Your task to perform on an android device: Open calendar and show me the second week of next month Image 0: 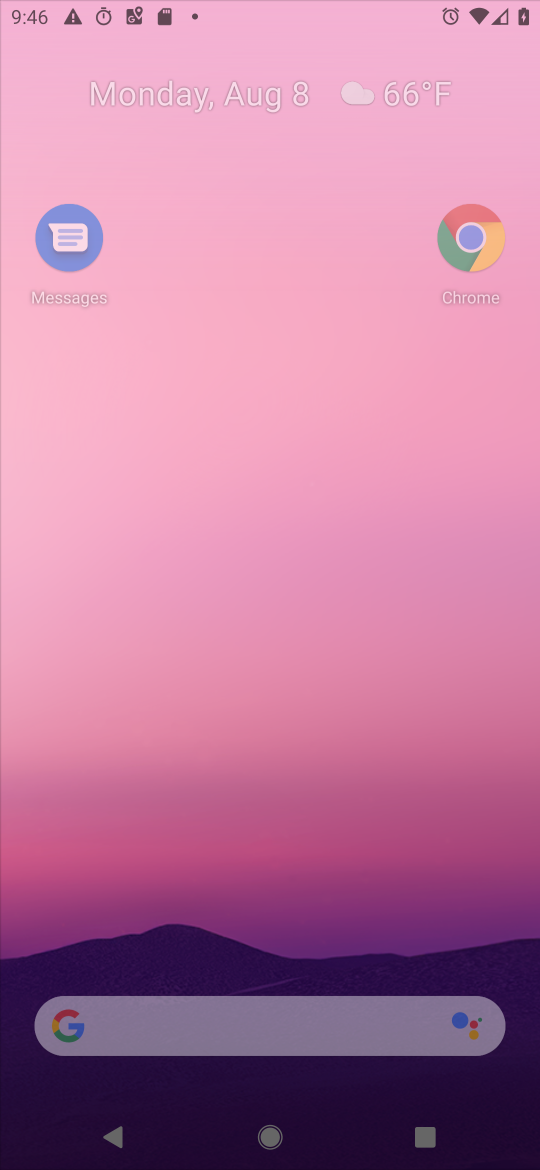
Step 0: drag from (285, 987) to (305, 126)
Your task to perform on an android device: Open calendar and show me the second week of next month Image 1: 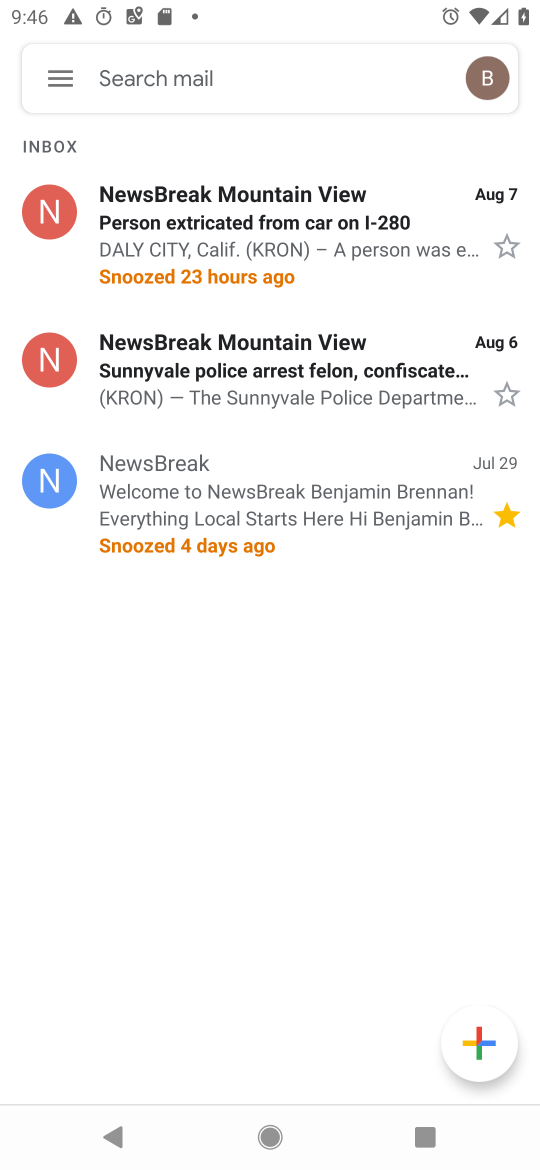
Step 1: press home button
Your task to perform on an android device: Open calendar and show me the second week of next month Image 2: 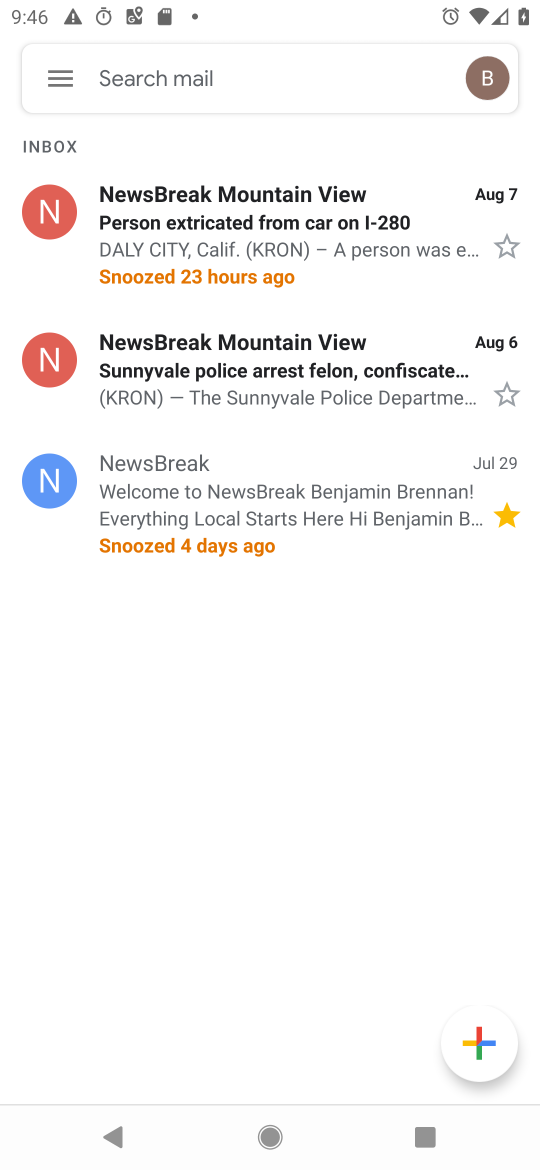
Step 2: press home button
Your task to perform on an android device: Open calendar and show me the second week of next month Image 3: 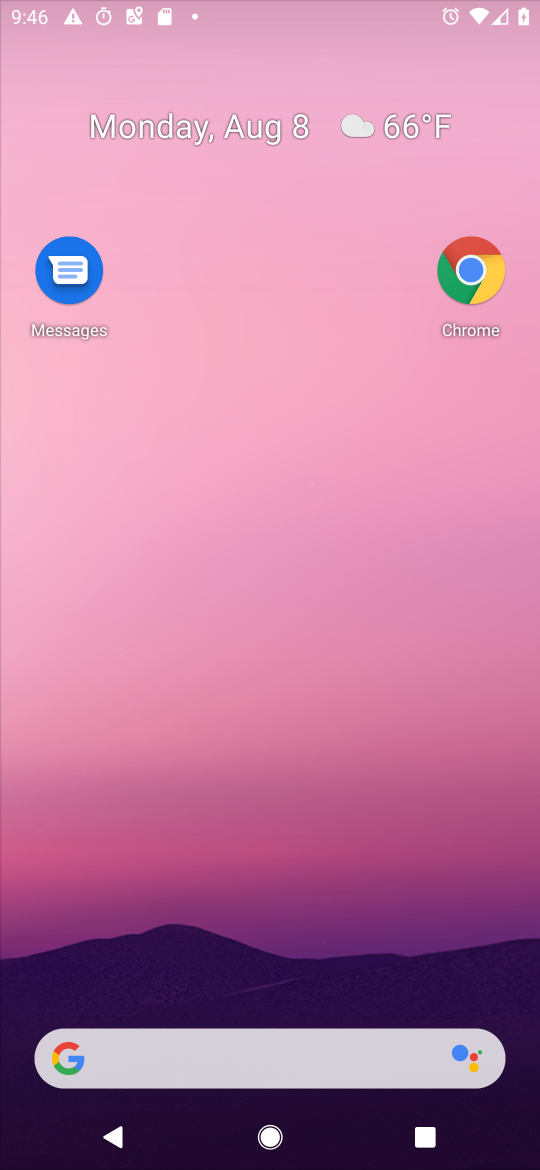
Step 3: press home button
Your task to perform on an android device: Open calendar and show me the second week of next month Image 4: 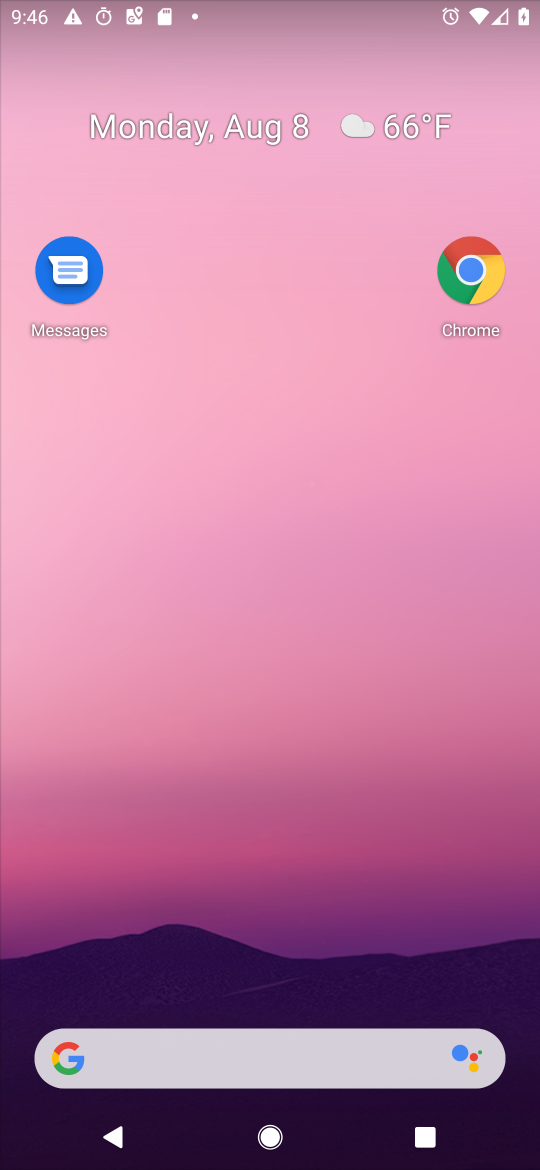
Step 4: press home button
Your task to perform on an android device: Open calendar and show me the second week of next month Image 5: 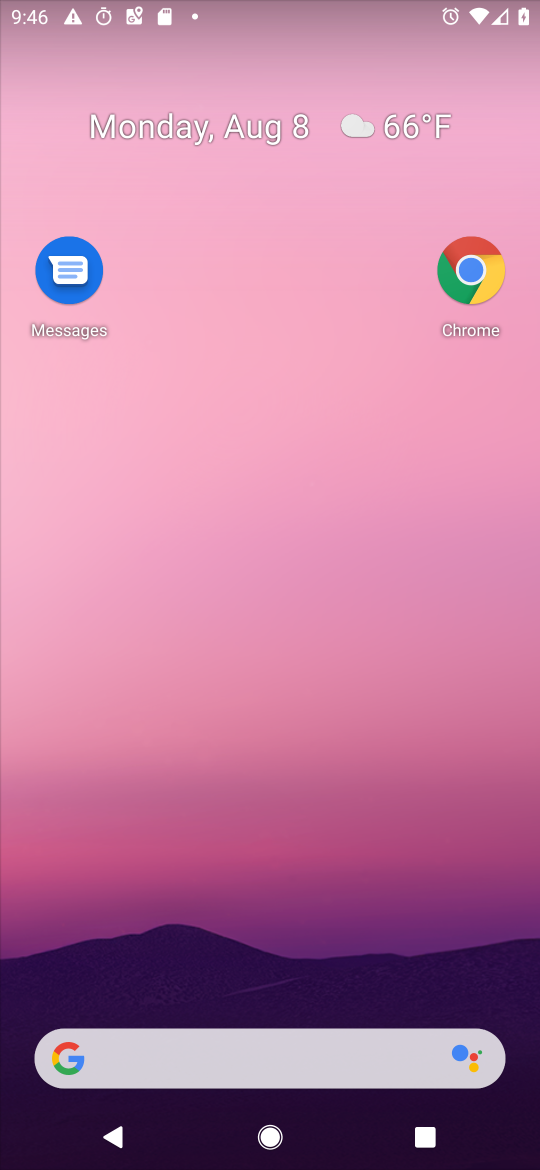
Step 5: press home button
Your task to perform on an android device: Open calendar and show me the second week of next month Image 6: 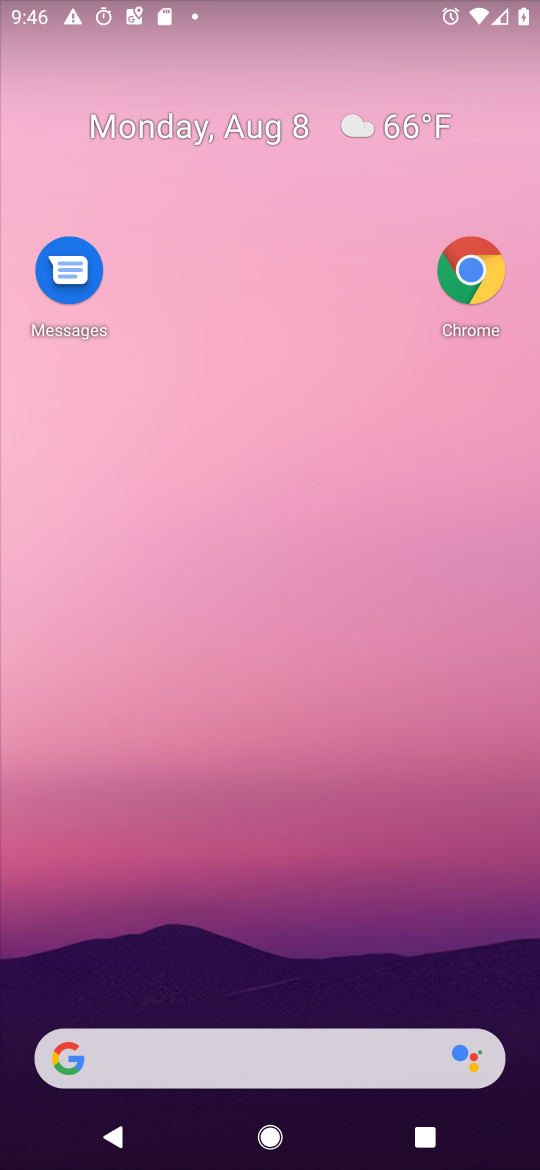
Step 6: drag from (245, 743) to (231, 10)
Your task to perform on an android device: Open calendar and show me the second week of next month Image 7: 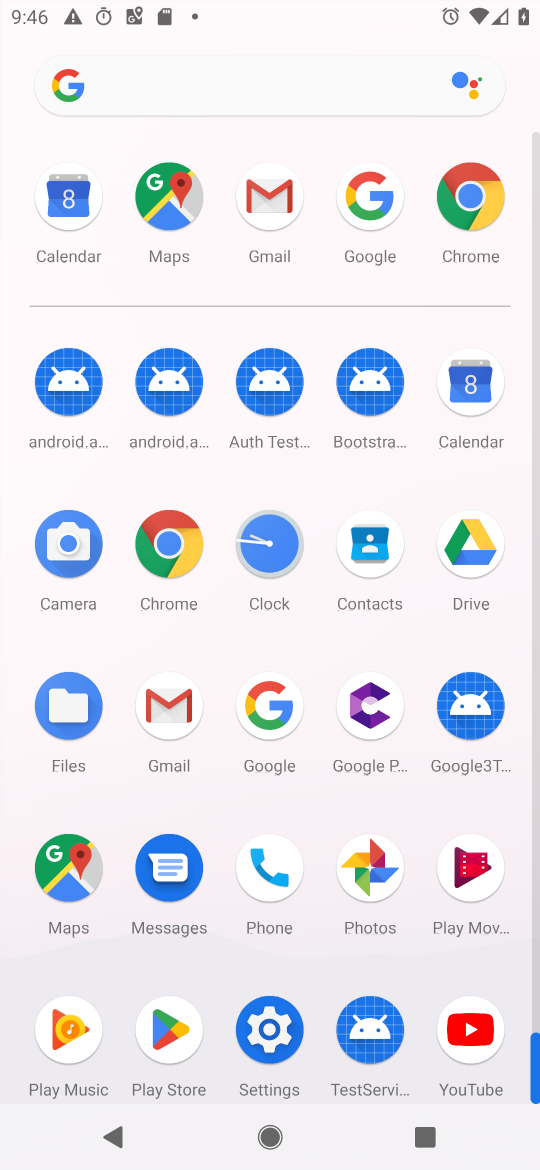
Step 7: click (480, 367)
Your task to perform on an android device: Open calendar and show me the second week of next month Image 8: 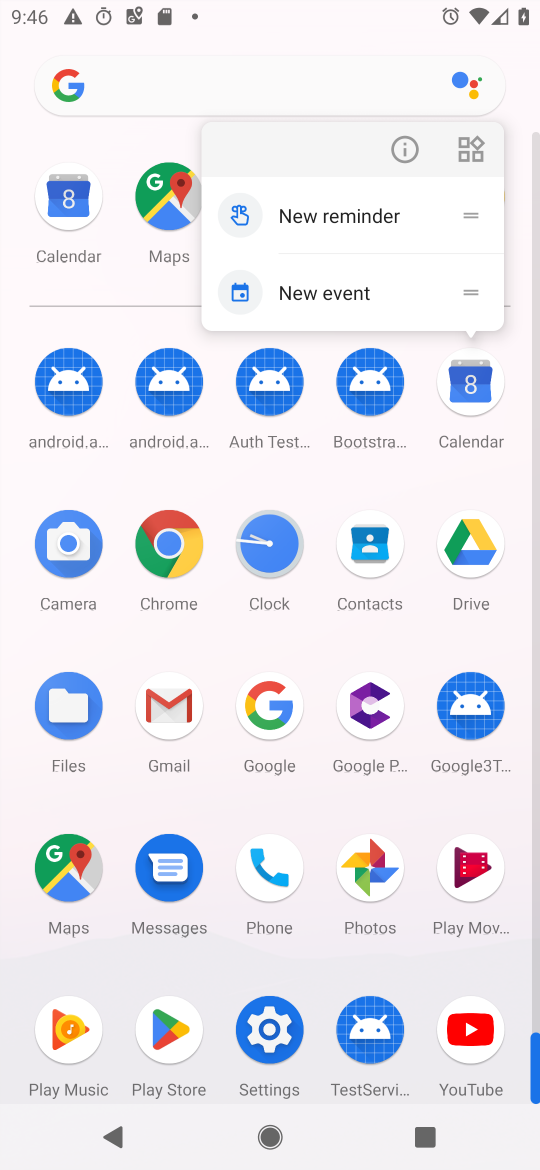
Step 8: click (397, 143)
Your task to perform on an android device: Open calendar and show me the second week of next month Image 9: 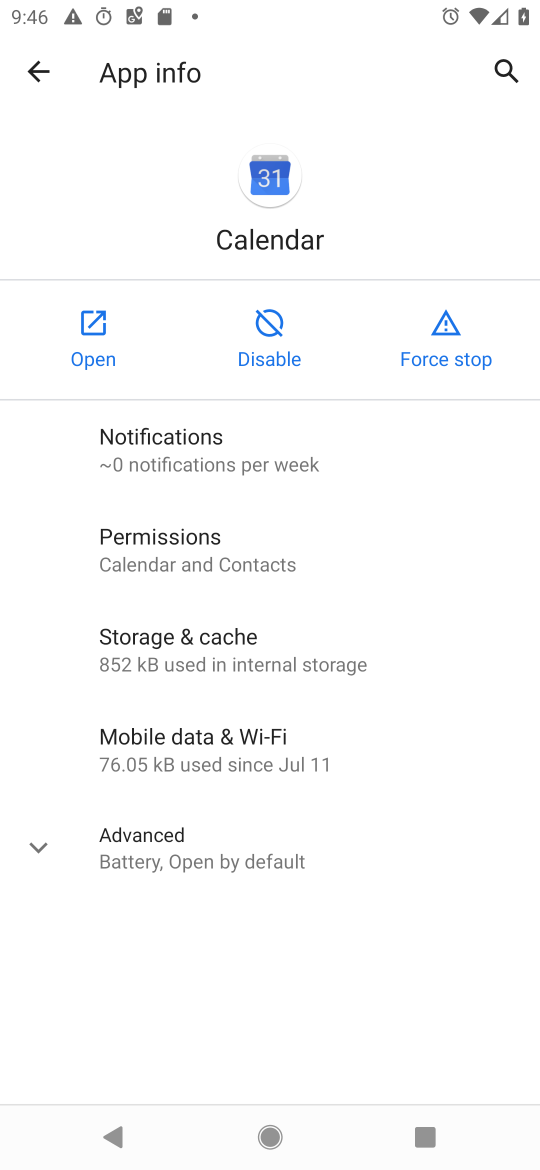
Step 9: click (95, 337)
Your task to perform on an android device: Open calendar and show me the second week of next month Image 10: 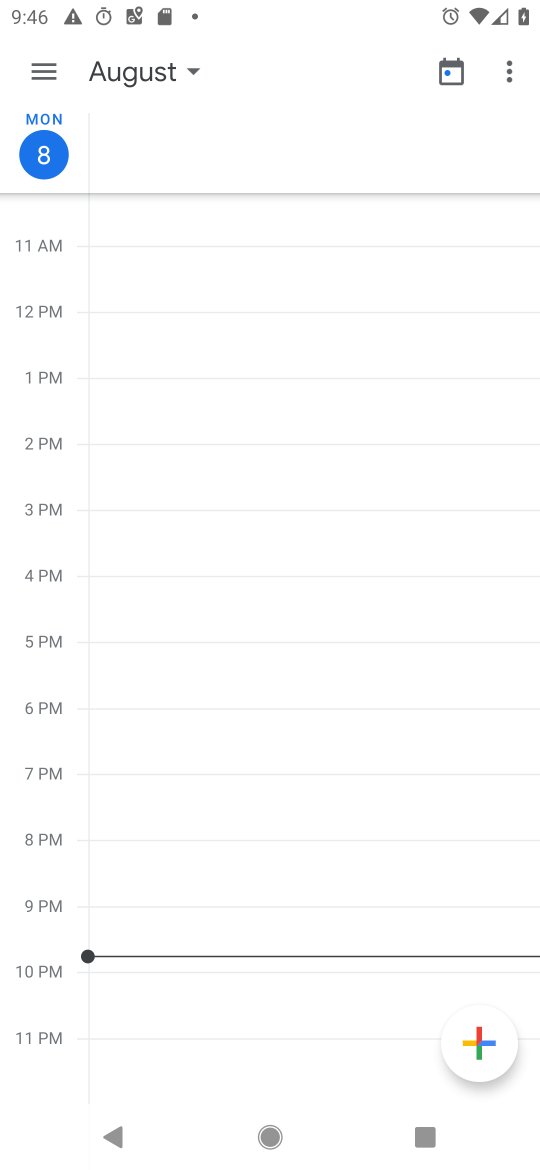
Step 10: click (196, 81)
Your task to perform on an android device: Open calendar and show me the second week of next month Image 11: 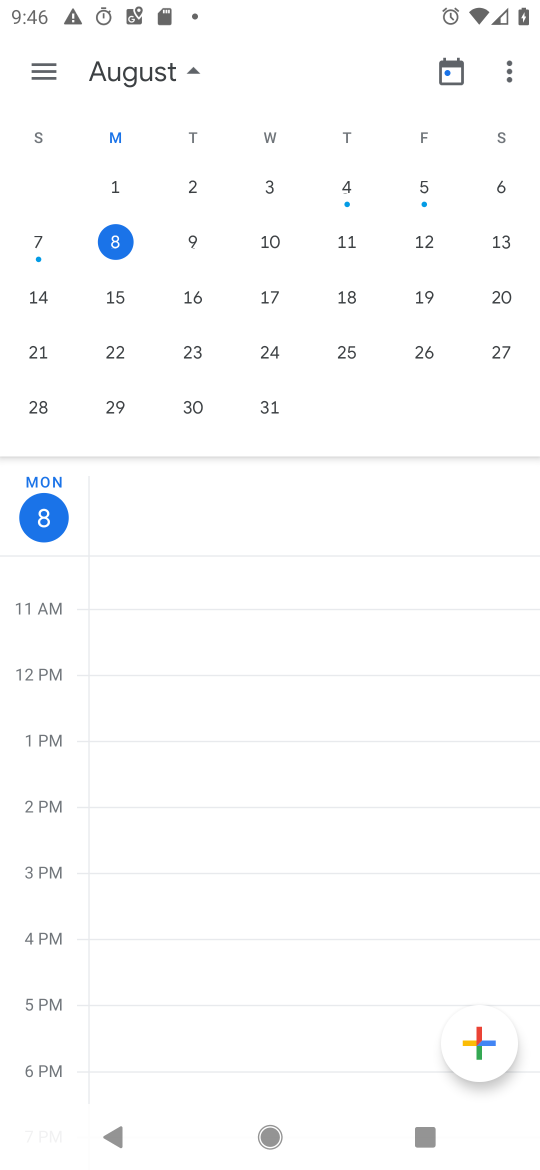
Step 11: drag from (468, 319) to (0, 352)
Your task to perform on an android device: Open calendar and show me the second week of next month Image 12: 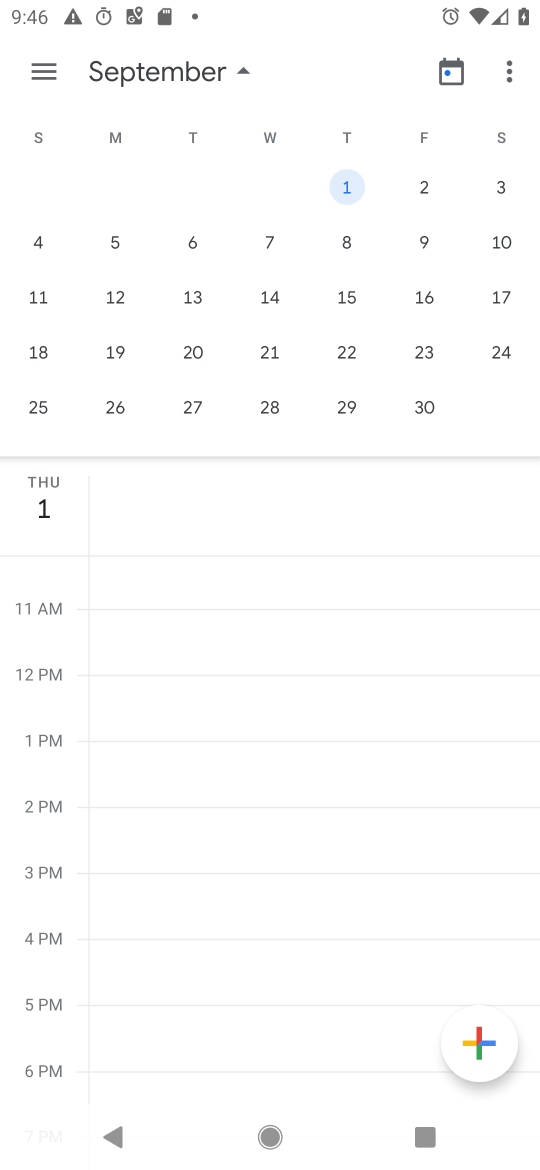
Step 12: click (450, 244)
Your task to perform on an android device: Open calendar and show me the second week of next month Image 13: 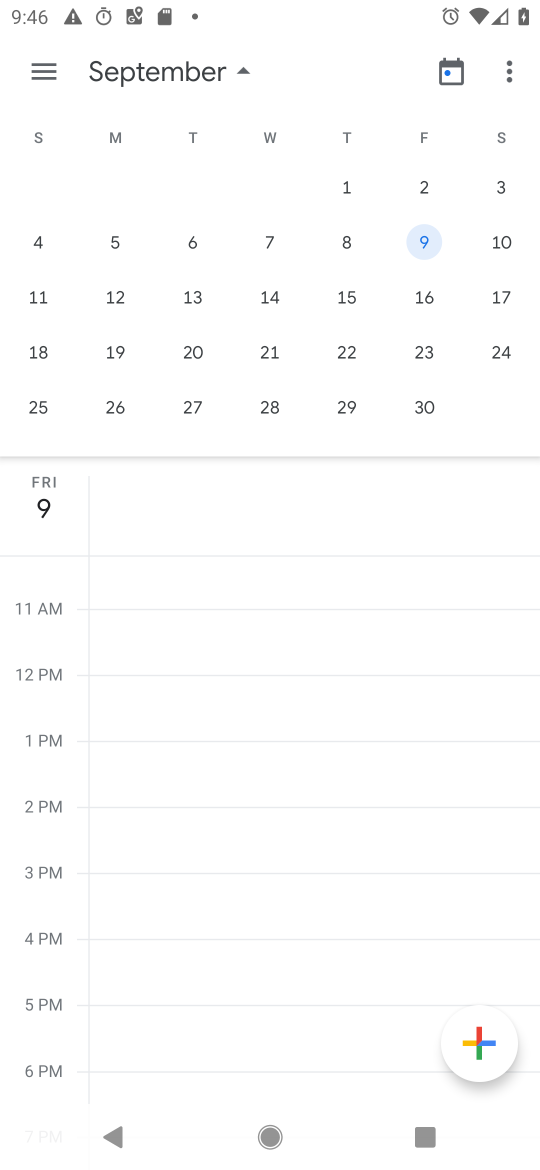
Step 13: task complete